Your task to perform on an android device: Open eBay Image 0: 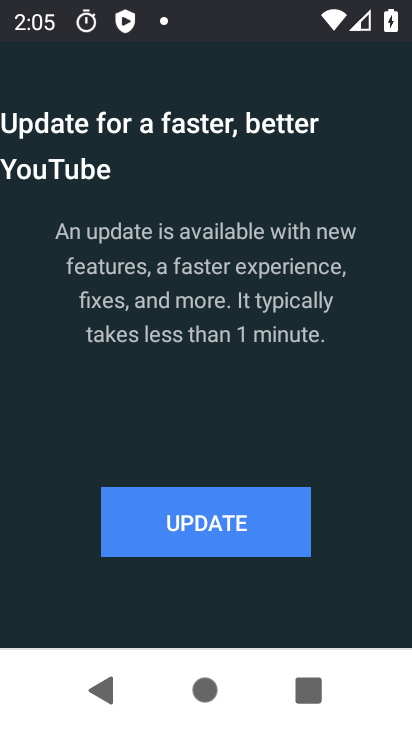
Step 0: press home button
Your task to perform on an android device: Open eBay Image 1: 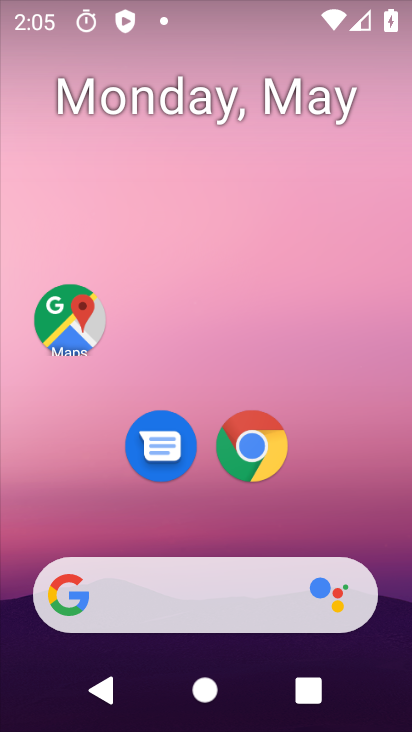
Step 1: click (275, 442)
Your task to perform on an android device: Open eBay Image 2: 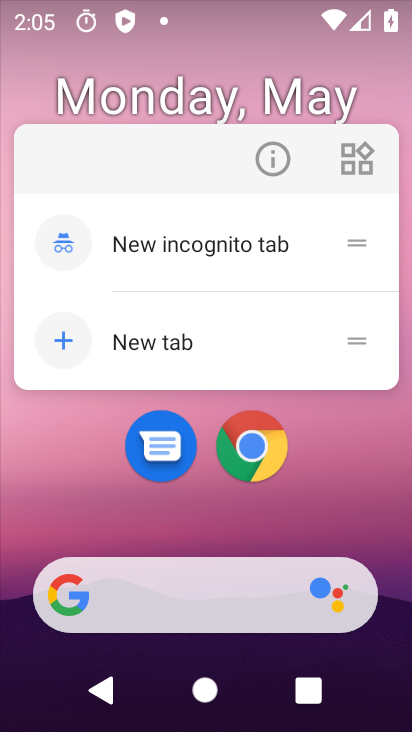
Step 2: click (275, 442)
Your task to perform on an android device: Open eBay Image 3: 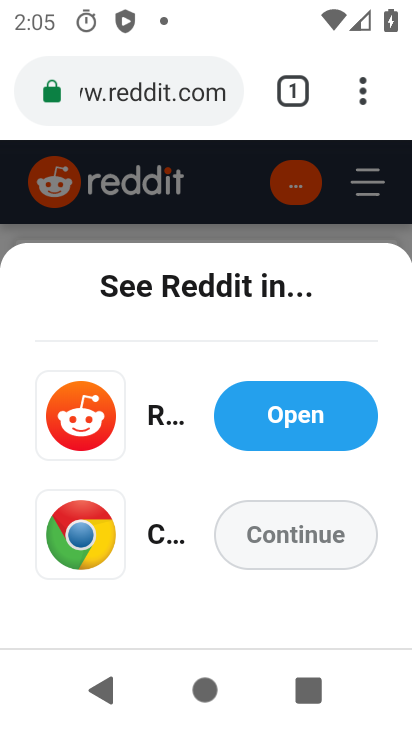
Step 3: click (331, 545)
Your task to perform on an android device: Open eBay Image 4: 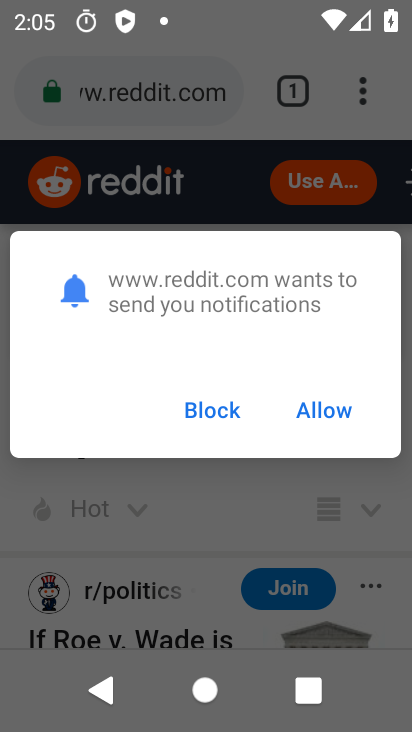
Step 4: click (354, 414)
Your task to perform on an android device: Open eBay Image 5: 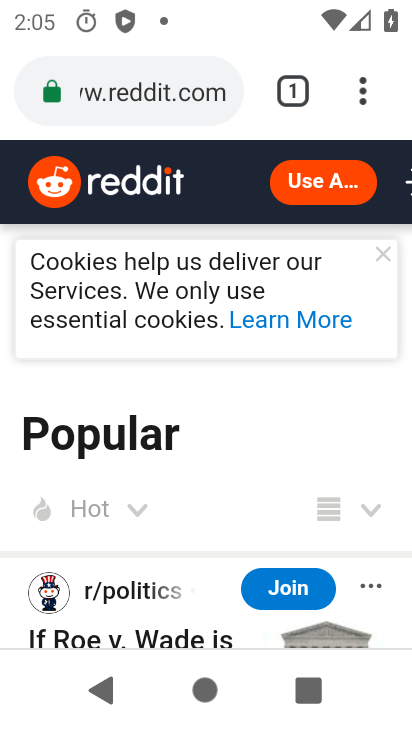
Step 5: click (207, 95)
Your task to perform on an android device: Open eBay Image 6: 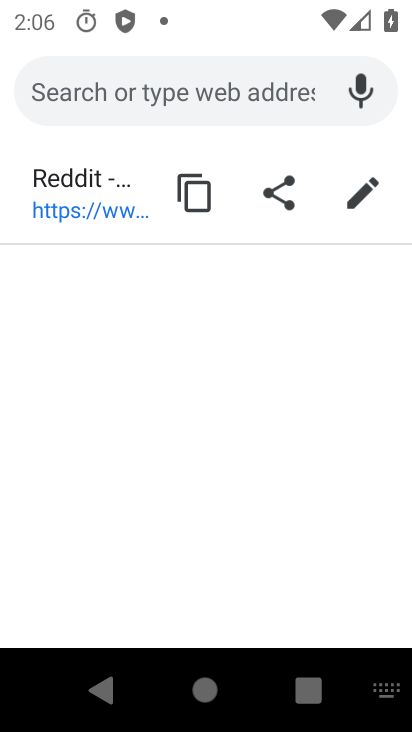
Step 6: type "ebay"
Your task to perform on an android device: Open eBay Image 7: 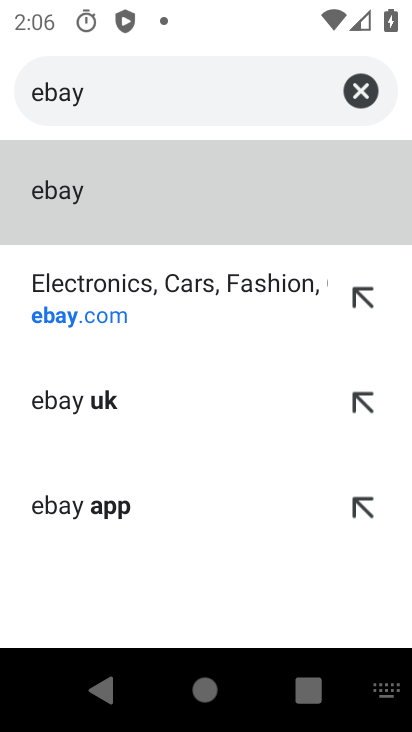
Step 7: click (152, 288)
Your task to perform on an android device: Open eBay Image 8: 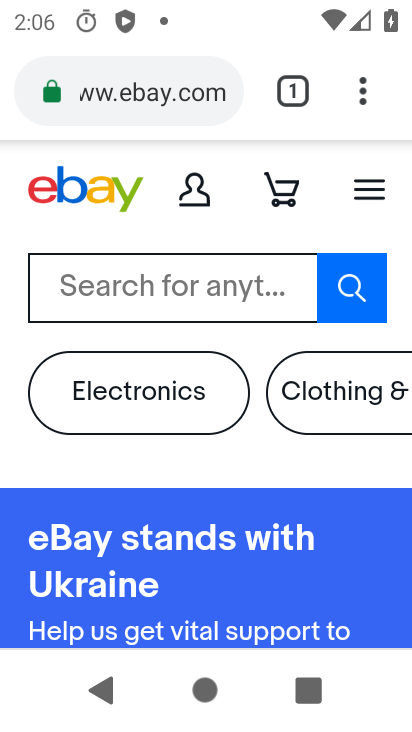
Step 8: task complete